Your task to perform on an android device: Go to eBay Image 0: 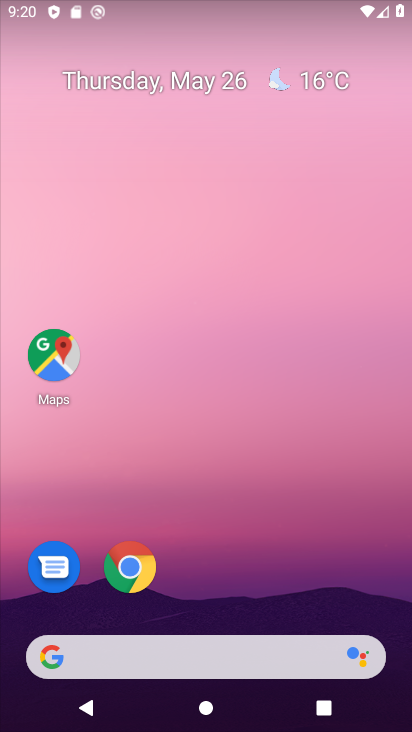
Step 0: click (409, 292)
Your task to perform on an android device: Go to eBay Image 1: 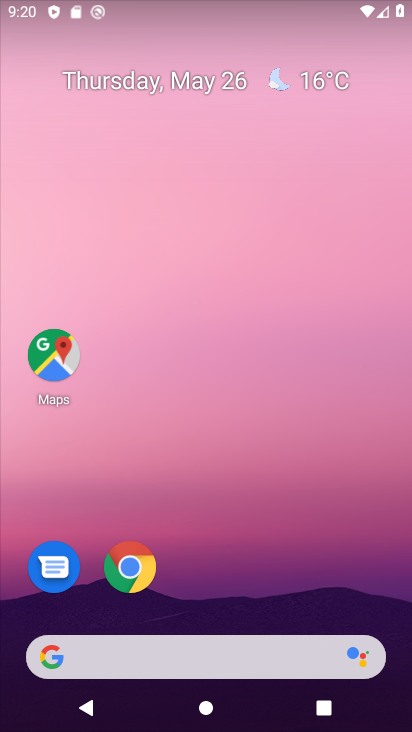
Step 1: click (124, 555)
Your task to perform on an android device: Go to eBay Image 2: 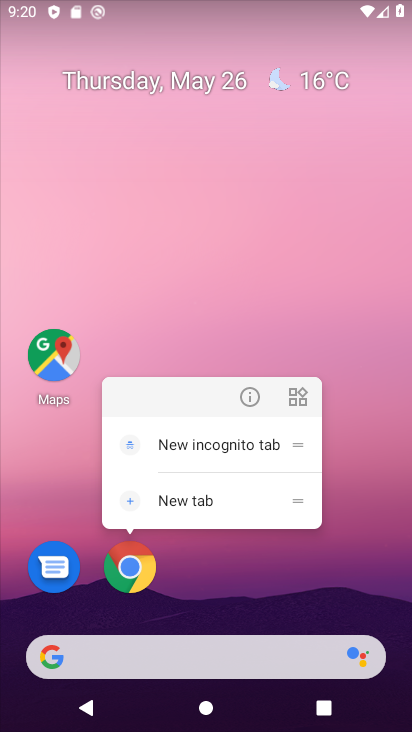
Step 2: click (130, 550)
Your task to perform on an android device: Go to eBay Image 3: 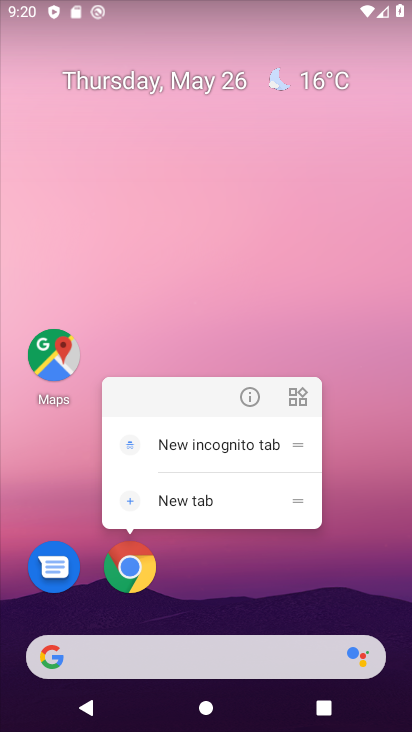
Step 3: click (122, 570)
Your task to perform on an android device: Go to eBay Image 4: 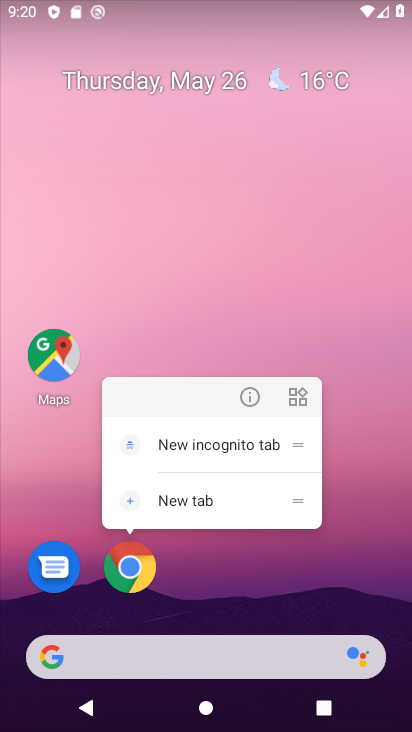
Step 4: click (128, 556)
Your task to perform on an android device: Go to eBay Image 5: 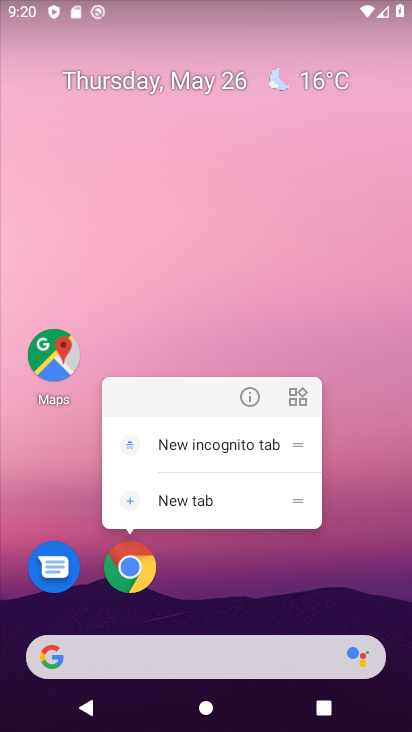
Step 5: click (123, 569)
Your task to perform on an android device: Go to eBay Image 6: 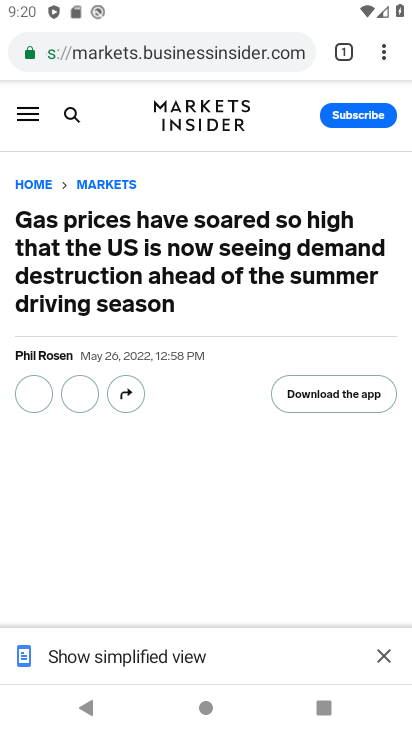
Step 6: click (308, 53)
Your task to perform on an android device: Go to eBay Image 7: 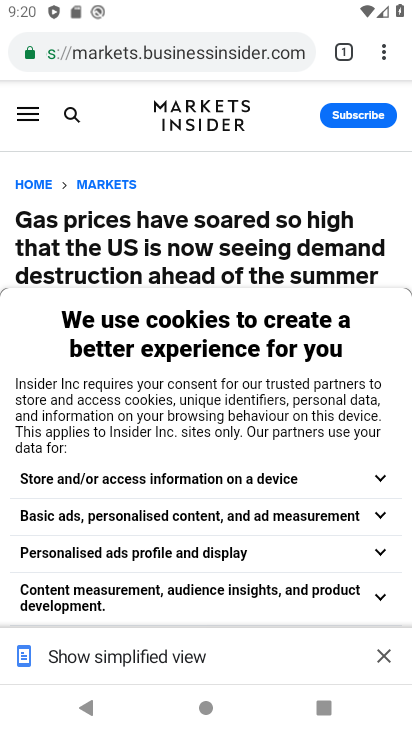
Step 7: click (306, 50)
Your task to perform on an android device: Go to eBay Image 8: 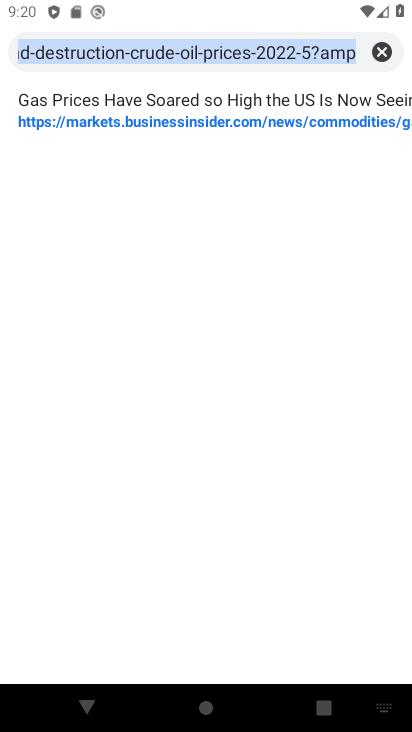
Step 8: click (376, 51)
Your task to perform on an android device: Go to eBay Image 9: 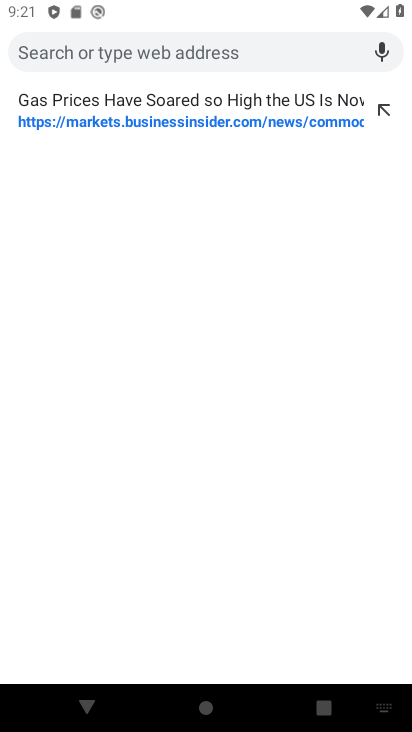
Step 9: type " eBay"
Your task to perform on an android device: Go to eBay Image 10: 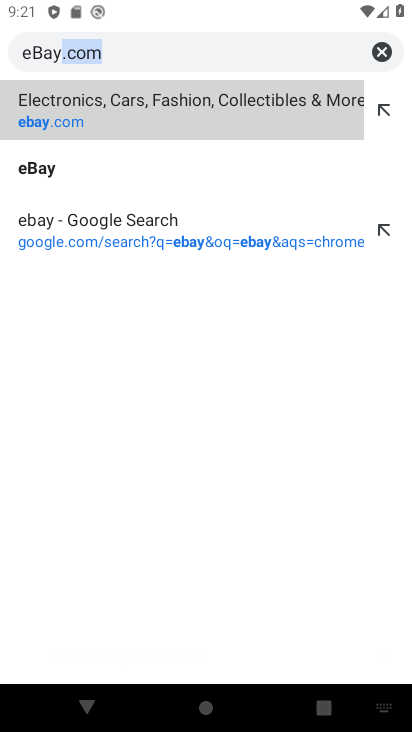
Step 10: click (48, 169)
Your task to perform on an android device: Go to eBay Image 11: 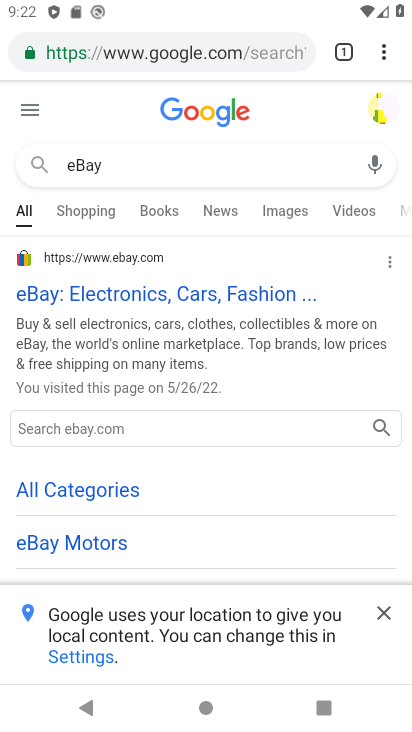
Step 11: task complete